Your task to perform on an android device: all mails in gmail Image 0: 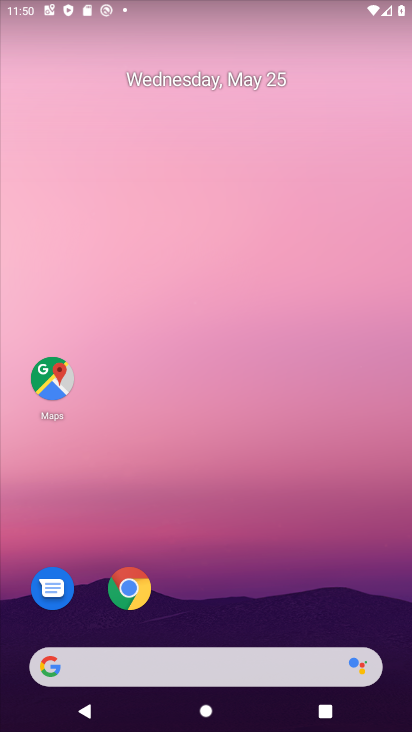
Step 0: drag from (238, 586) to (209, 38)
Your task to perform on an android device: all mails in gmail Image 1: 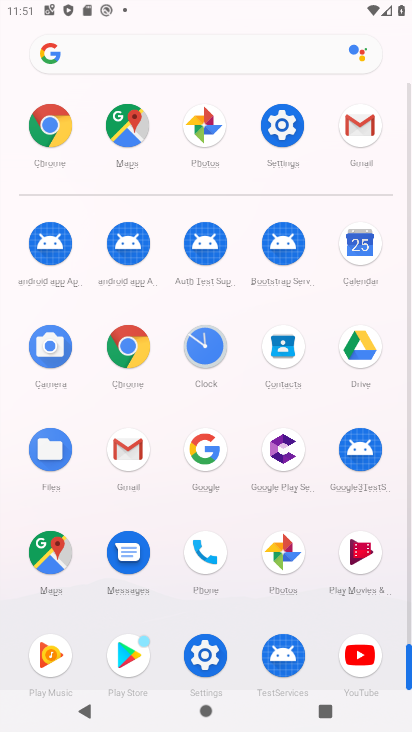
Step 1: drag from (14, 575) to (12, 251)
Your task to perform on an android device: all mails in gmail Image 2: 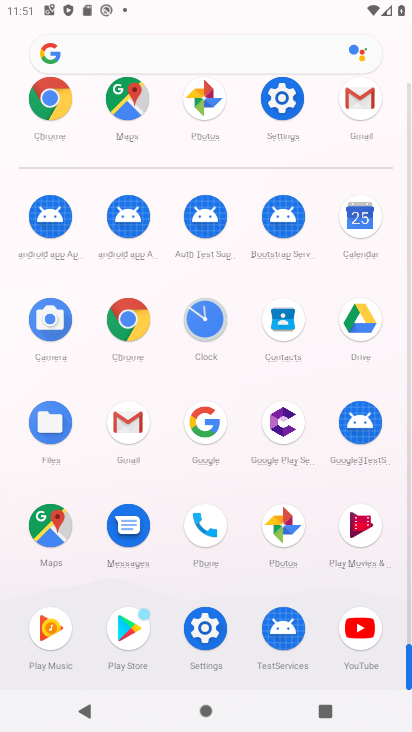
Step 2: click (128, 405)
Your task to perform on an android device: all mails in gmail Image 3: 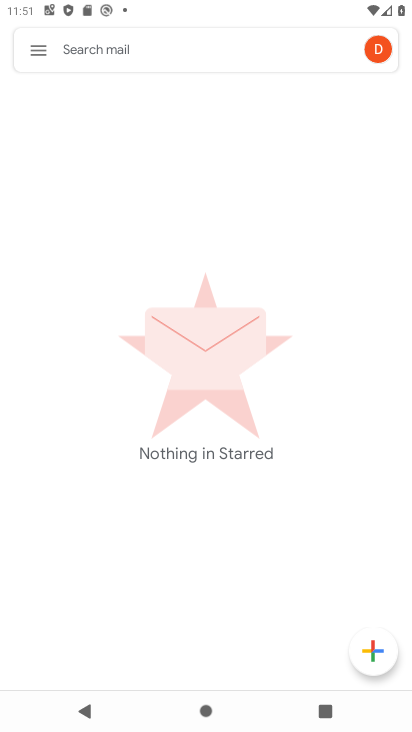
Step 3: click (35, 45)
Your task to perform on an android device: all mails in gmail Image 4: 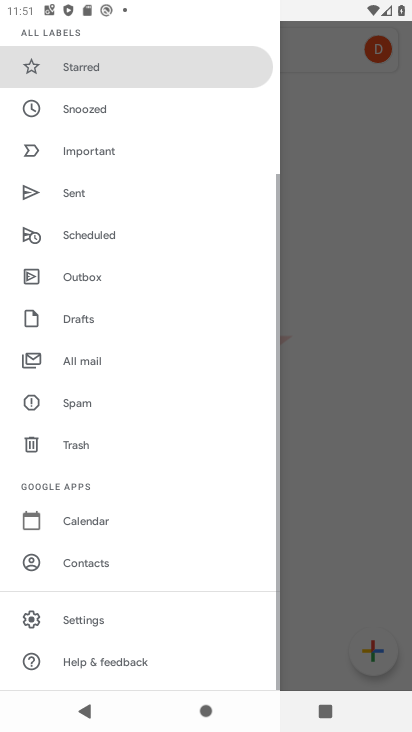
Step 4: click (79, 365)
Your task to perform on an android device: all mails in gmail Image 5: 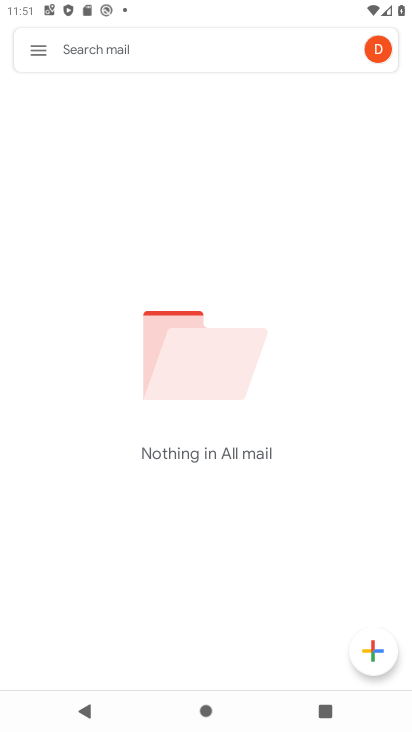
Step 5: task complete